Your task to perform on an android device: turn on the 12-hour format for clock Image 0: 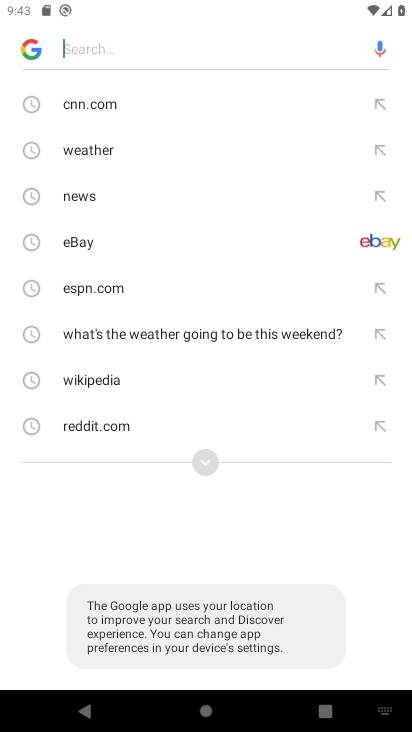
Step 0: press home button
Your task to perform on an android device: turn on the 12-hour format for clock Image 1: 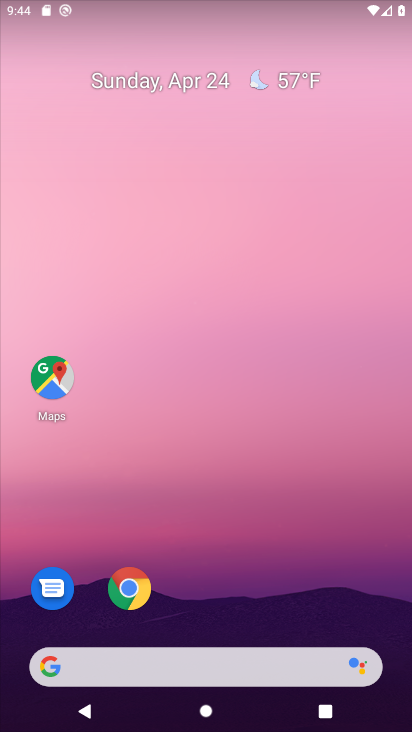
Step 1: drag from (241, 595) to (307, 43)
Your task to perform on an android device: turn on the 12-hour format for clock Image 2: 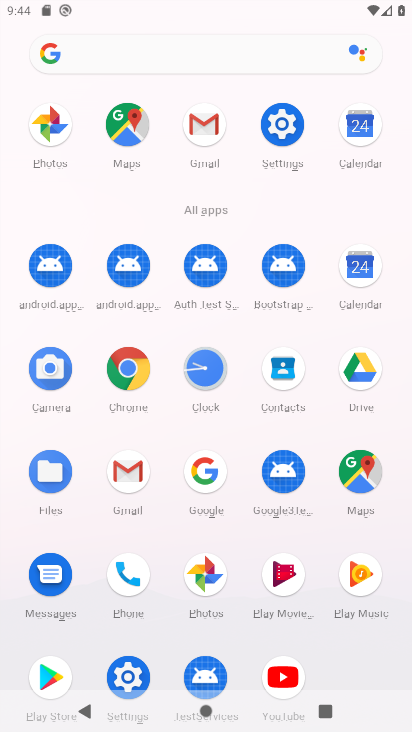
Step 2: click (206, 371)
Your task to perform on an android device: turn on the 12-hour format for clock Image 3: 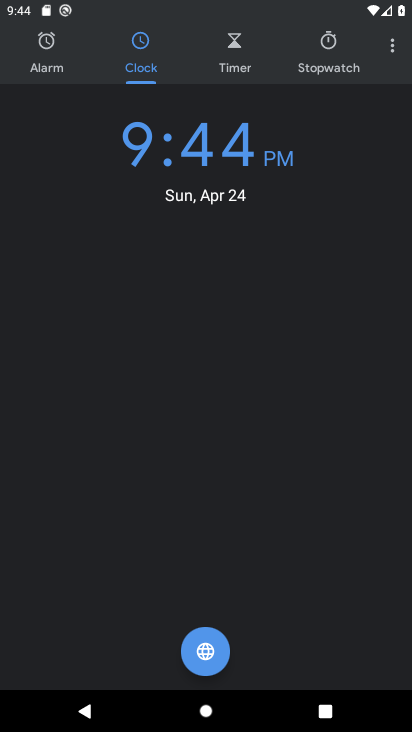
Step 3: click (394, 49)
Your task to perform on an android device: turn on the 12-hour format for clock Image 4: 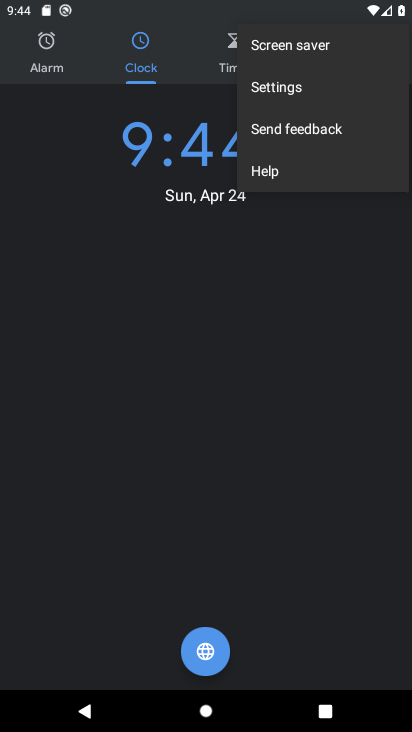
Step 4: click (302, 91)
Your task to perform on an android device: turn on the 12-hour format for clock Image 5: 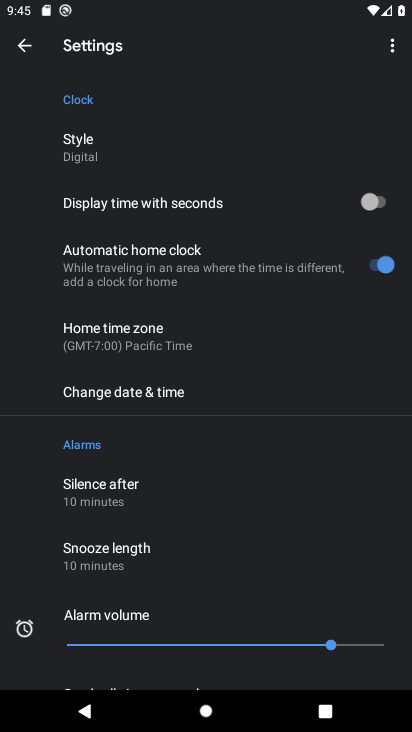
Step 5: click (198, 387)
Your task to perform on an android device: turn on the 12-hour format for clock Image 6: 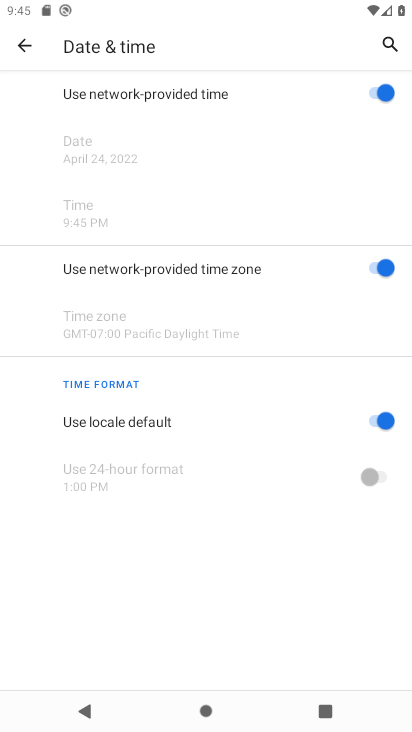
Step 6: task complete